Your task to perform on an android device: change text size in settings app Image 0: 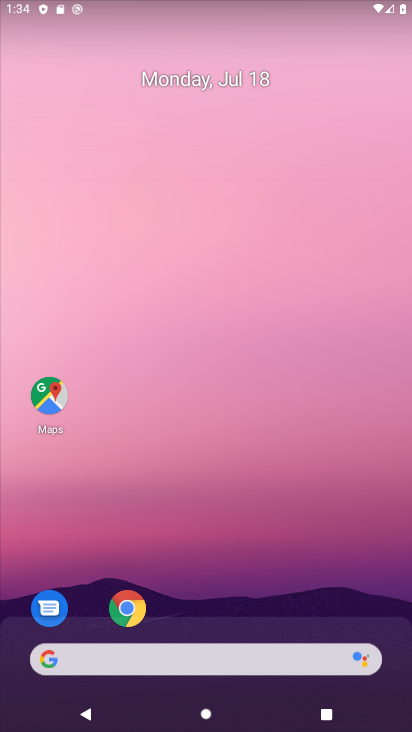
Step 0: drag from (182, 664) to (26, 9)
Your task to perform on an android device: change text size in settings app Image 1: 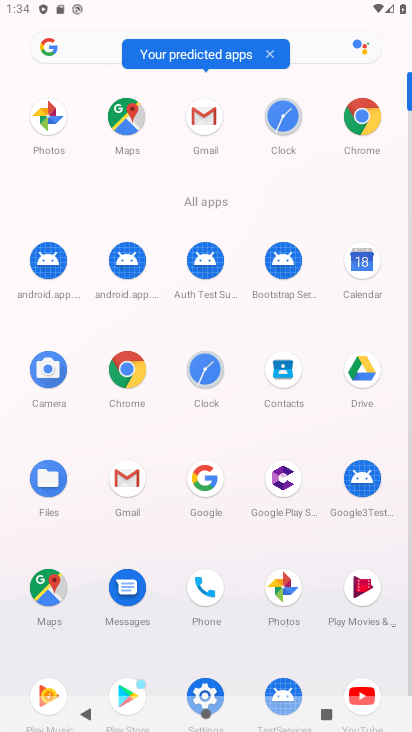
Step 1: click (206, 683)
Your task to perform on an android device: change text size in settings app Image 2: 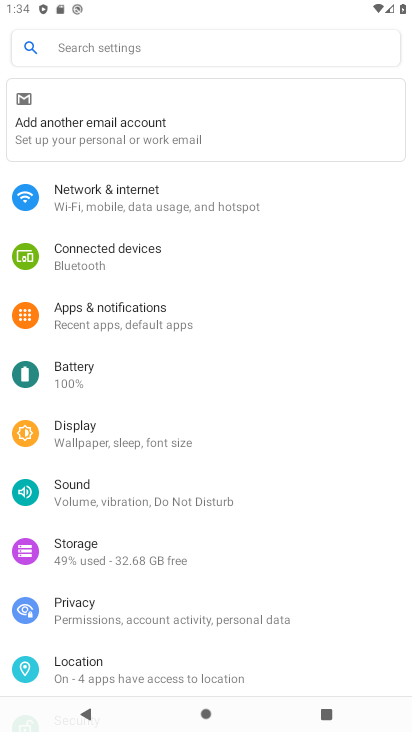
Step 2: click (96, 443)
Your task to perform on an android device: change text size in settings app Image 3: 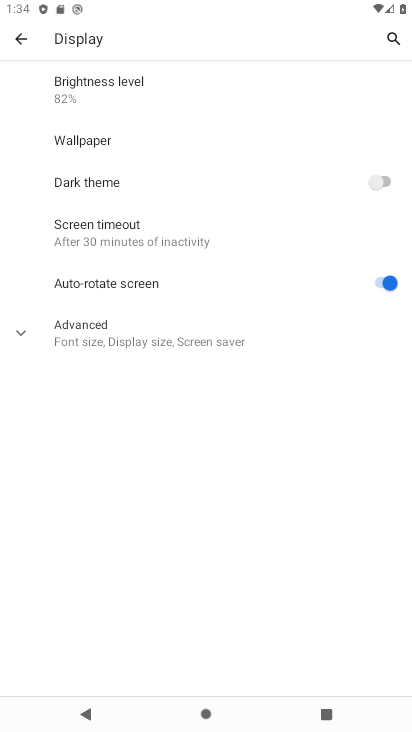
Step 3: click (130, 349)
Your task to perform on an android device: change text size in settings app Image 4: 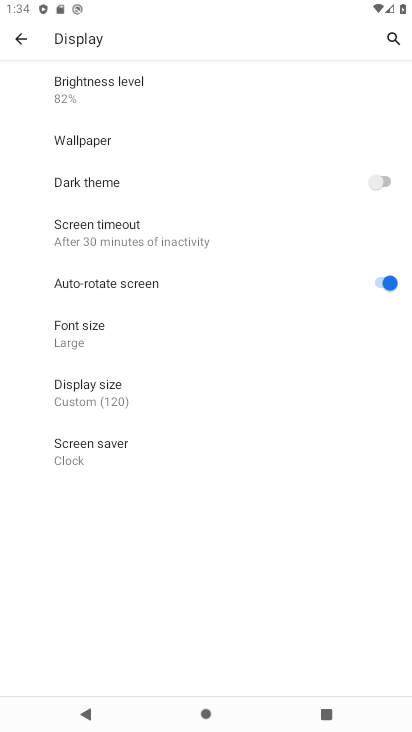
Step 4: click (116, 338)
Your task to perform on an android device: change text size in settings app Image 5: 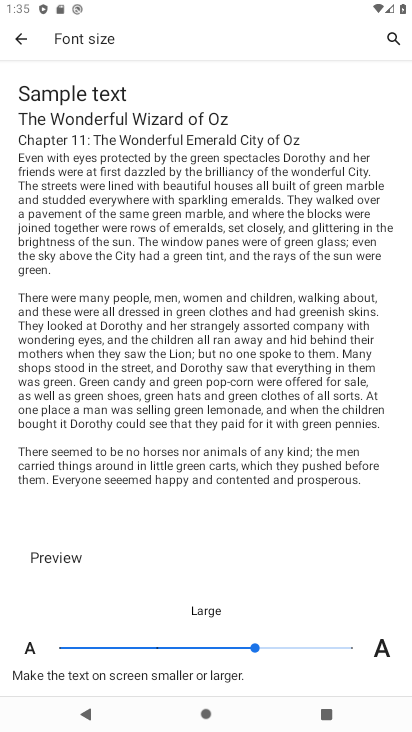
Step 5: task complete